Your task to perform on an android device: set the timer Image 0: 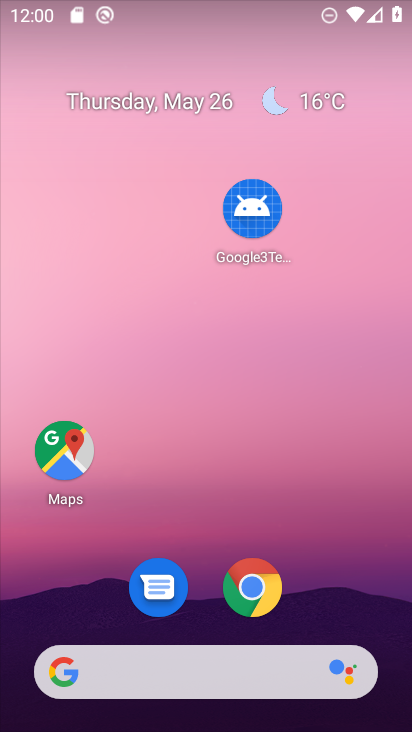
Step 0: drag from (202, 660) to (151, 11)
Your task to perform on an android device: set the timer Image 1: 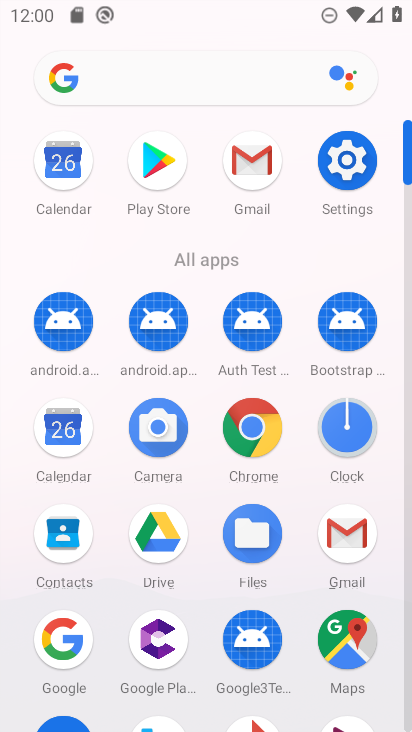
Step 1: click (346, 166)
Your task to perform on an android device: set the timer Image 2: 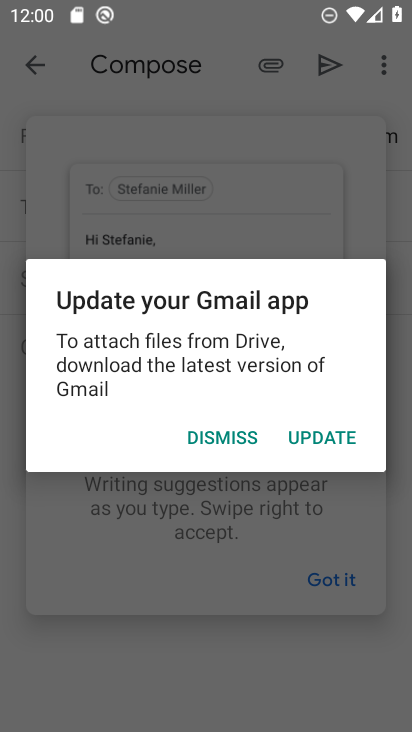
Step 2: press home button
Your task to perform on an android device: set the timer Image 3: 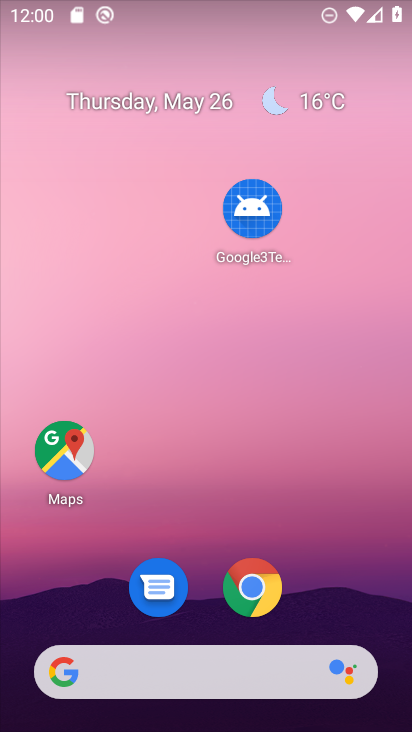
Step 3: drag from (190, 638) to (232, 68)
Your task to perform on an android device: set the timer Image 4: 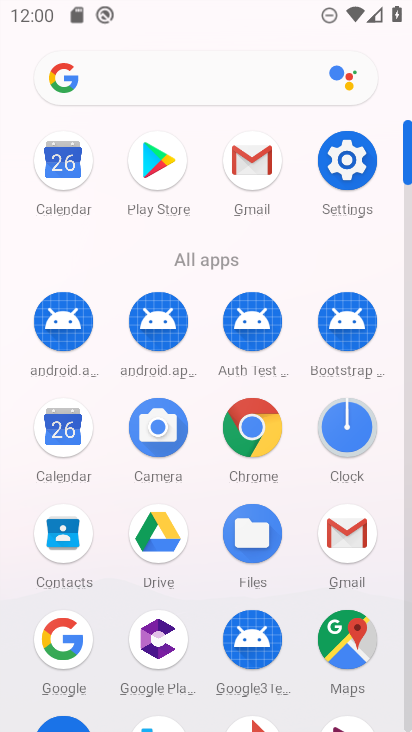
Step 4: click (342, 434)
Your task to perform on an android device: set the timer Image 5: 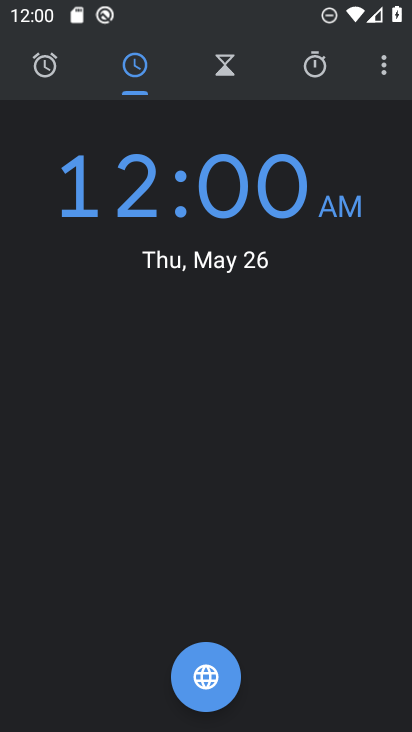
Step 5: click (239, 73)
Your task to perform on an android device: set the timer Image 6: 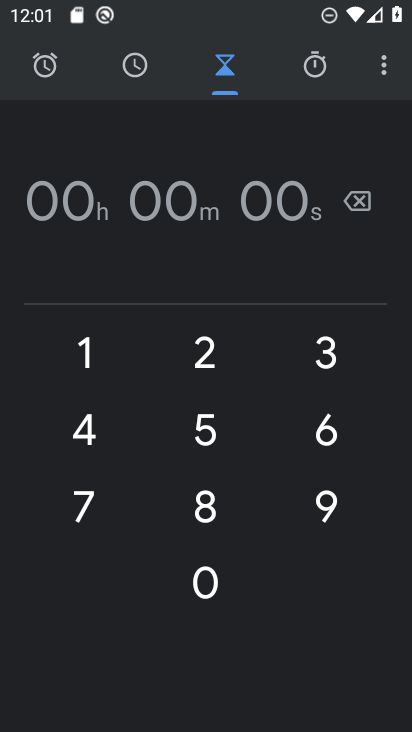
Step 6: click (257, 416)
Your task to perform on an android device: set the timer Image 7: 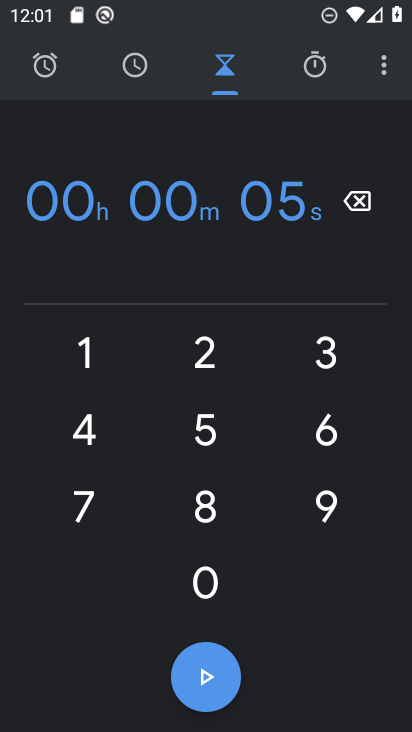
Step 7: click (199, 513)
Your task to perform on an android device: set the timer Image 8: 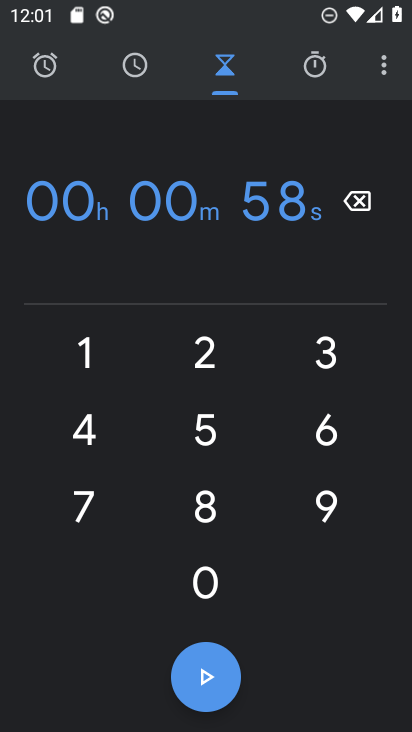
Step 8: click (89, 511)
Your task to perform on an android device: set the timer Image 9: 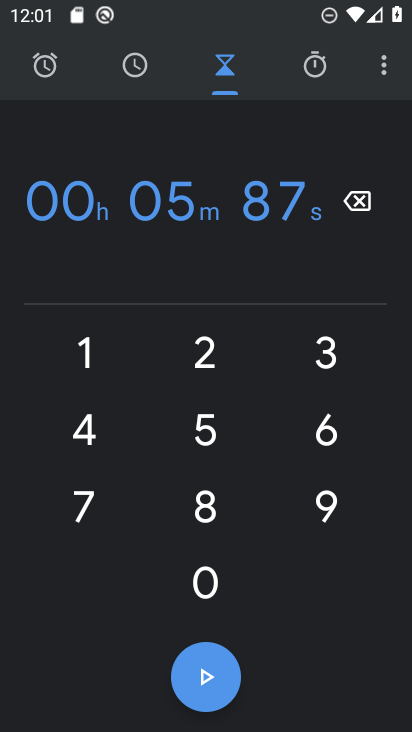
Step 9: click (198, 658)
Your task to perform on an android device: set the timer Image 10: 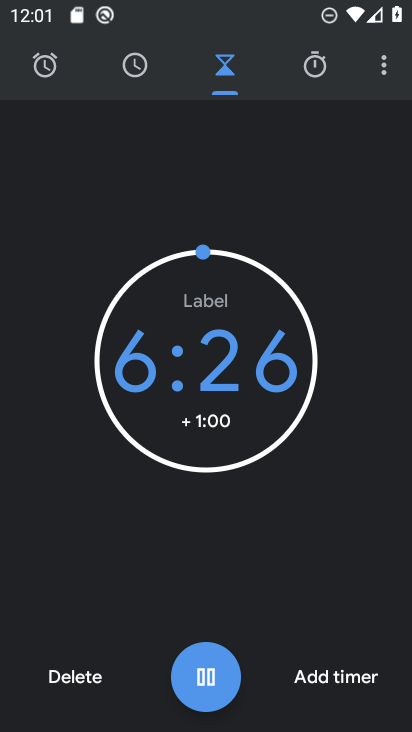
Step 10: task complete